Your task to perform on an android device: Where can I buy a nice beach tent? Image 0: 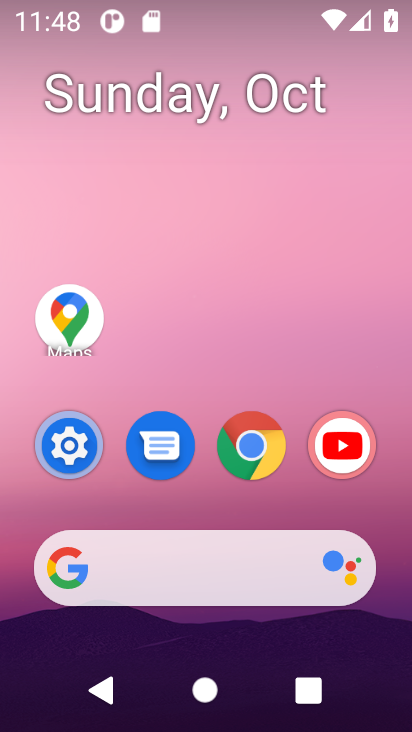
Step 0: click (82, 560)
Your task to perform on an android device: Where can I buy a nice beach tent? Image 1: 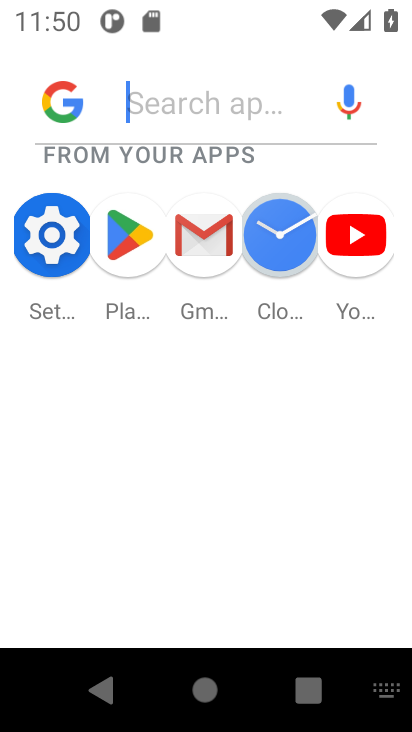
Step 1: type "where can i buy a nice beach tent?"
Your task to perform on an android device: Where can I buy a nice beach tent? Image 2: 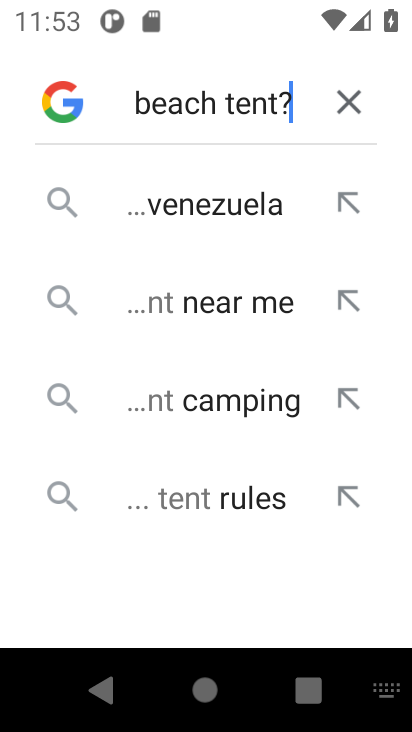
Step 2: click (193, 200)
Your task to perform on an android device: Where can I buy a nice beach tent? Image 3: 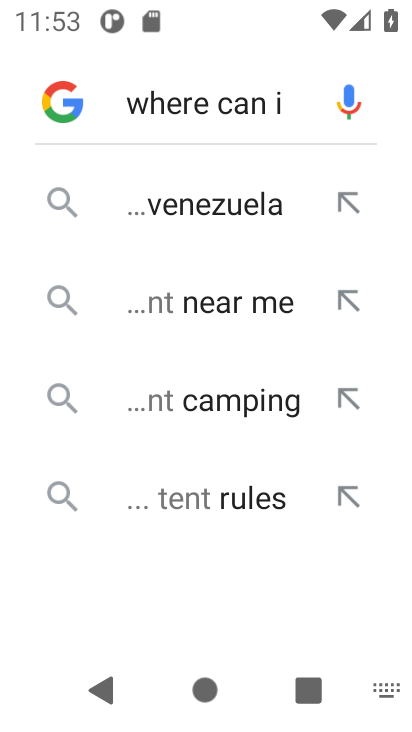
Step 3: task complete